Your task to perform on an android device: turn off location Image 0: 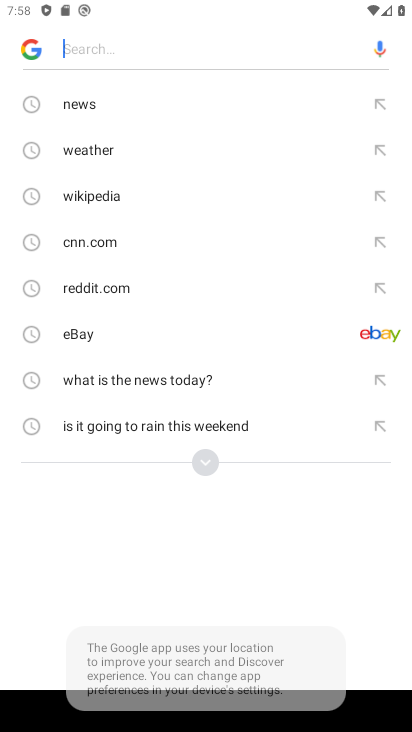
Step 0: press home button
Your task to perform on an android device: turn off location Image 1: 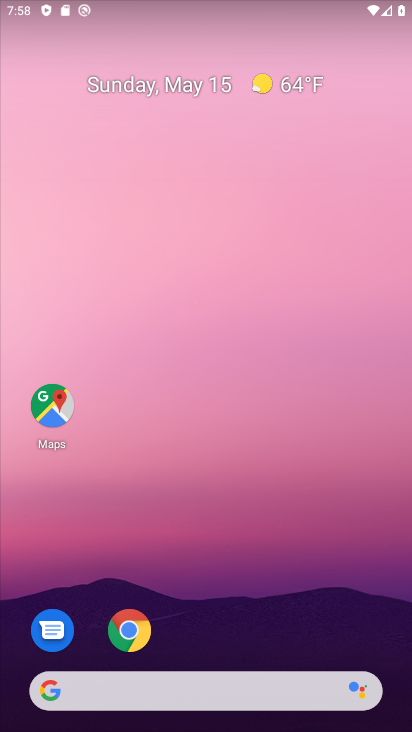
Step 1: drag from (310, 567) to (290, 70)
Your task to perform on an android device: turn off location Image 2: 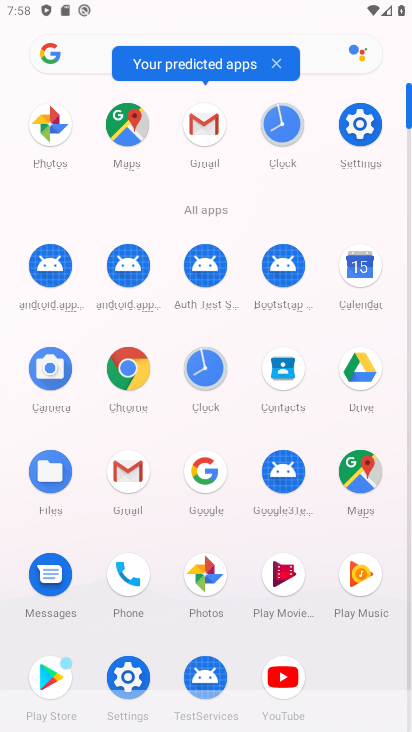
Step 2: click (368, 117)
Your task to perform on an android device: turn off location Image 3: 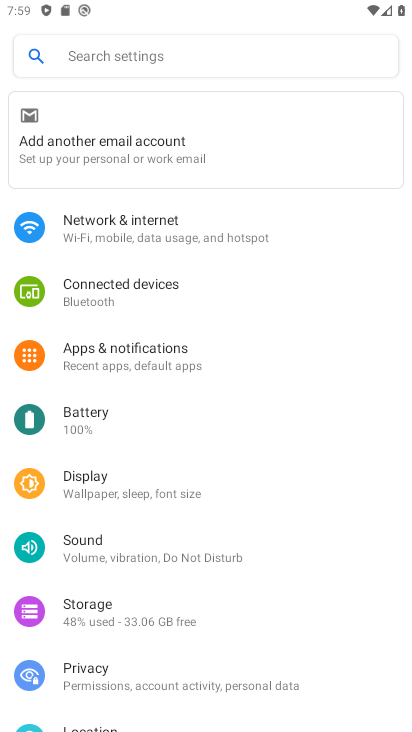
Step 3: drag from (219, 627) to (266, 283)
Your task to perform on an android device: turn off location Image 4: 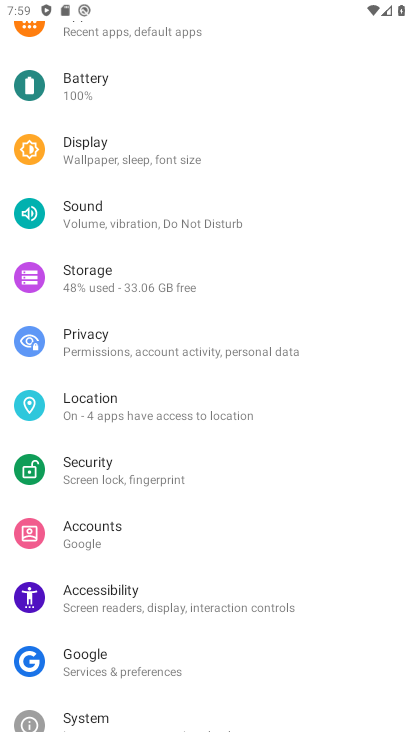
Step 4: click (124, 414)
Your task to perform on an android device: turn off location Image 5: 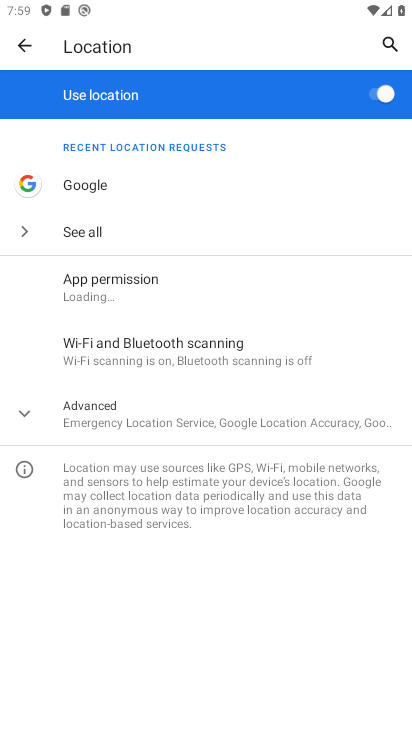
Step 5: click (367, 97)
Your task to perform on an android device: turn off location Image 6: 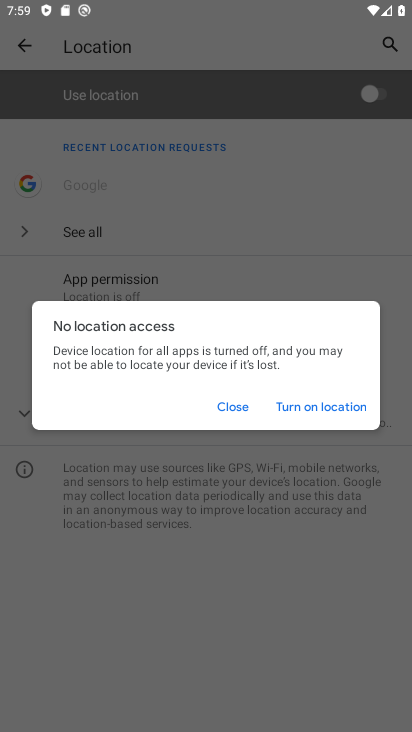
Step 6: task complete